Your task to perform on an android device: toggle sleep mode Image 0: 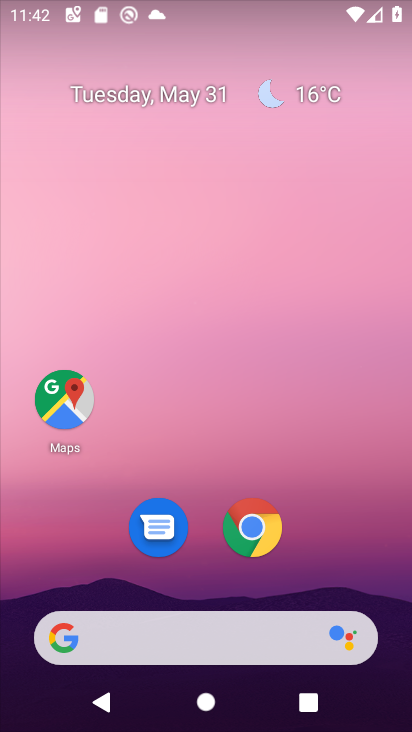
Step 0: drag from (345, 594) to (351, 13)
Your task to perform on an android device: toggle sleep mode Image 1: 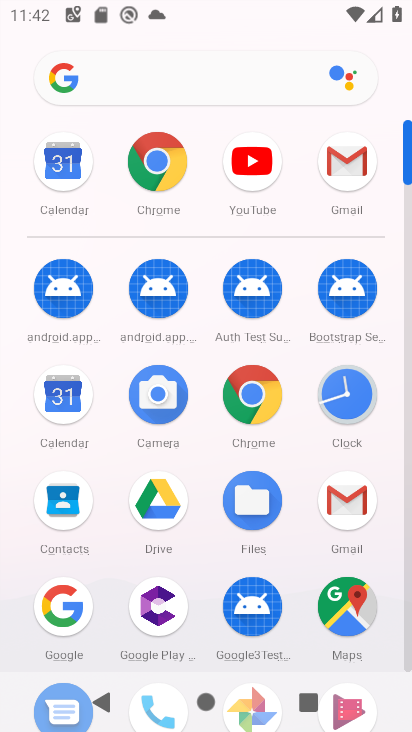
Step 1: click (407, 458)
Your task to perform on an android device: toggle sleep mode Image 2: 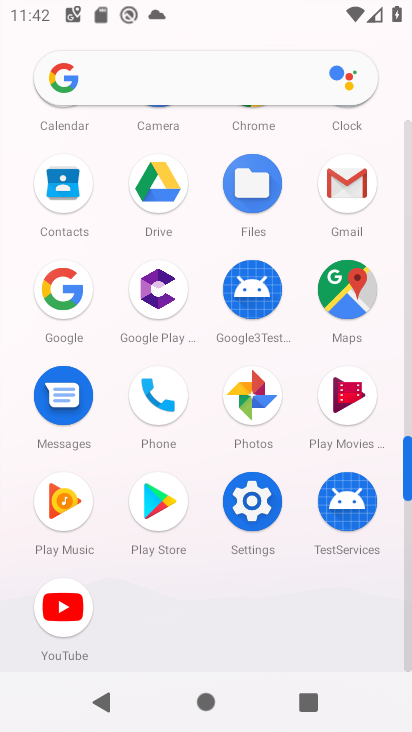
Step 2: click (252, 499)
Your task to perform on an android device: toggle sleep mode Image 3: 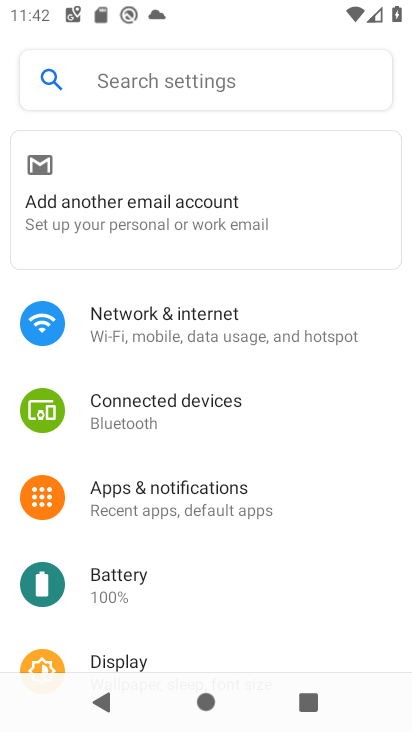
Step 3: drag from (227, 587) to (232, 371)
Your task to perform on an android device: toggle sleep mode Image 4: 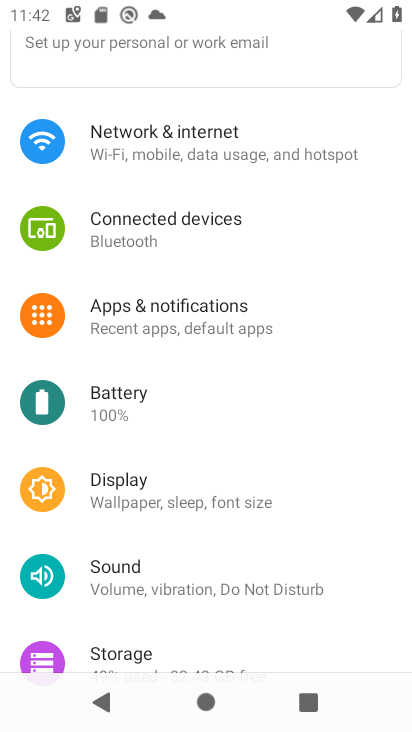
Step 4: click (114, 487)
Your task to perform on an android device: toggle sleep mode Image 5: 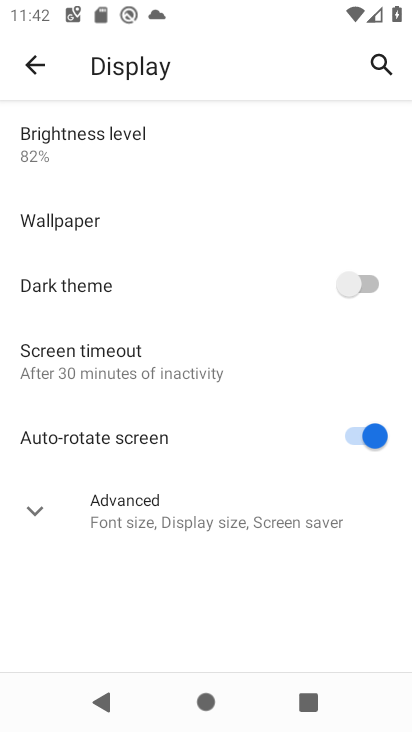
Step 5: click (36, 518)
Your task to perform on an android device: toggle sleep mode Image 6: 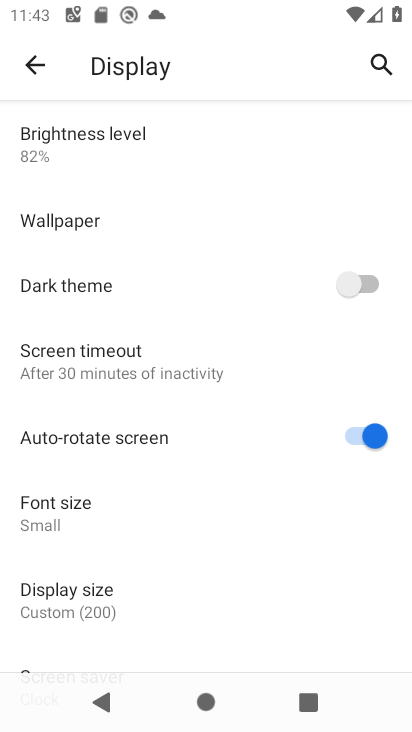
Step 6: task complete